Your task to perform on an android device: What's on my calendar today? Image 0: 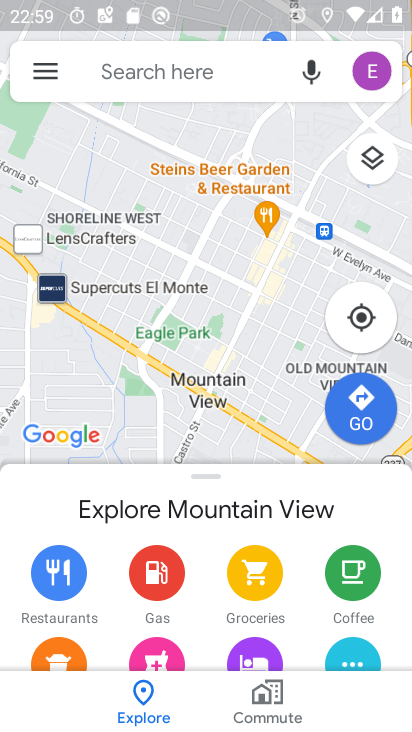
Step 0: press home button
Your task to perform on an android device: What's on my calendar today? Image 1: 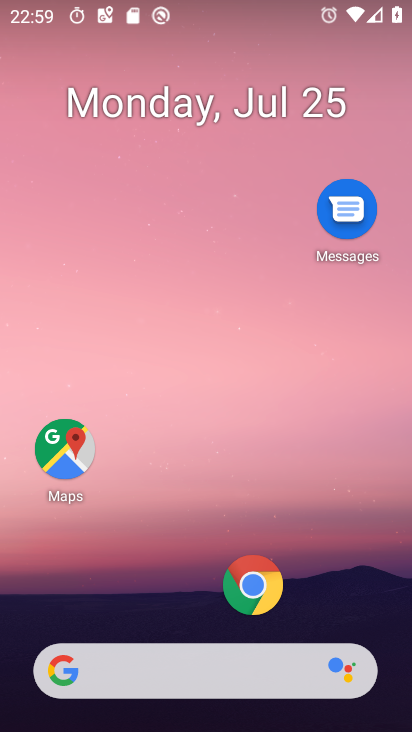
Step 1: drag from (169, 680) to (257, 48)
Your task to perform on an android device: What's on my calendar today? Image 2: 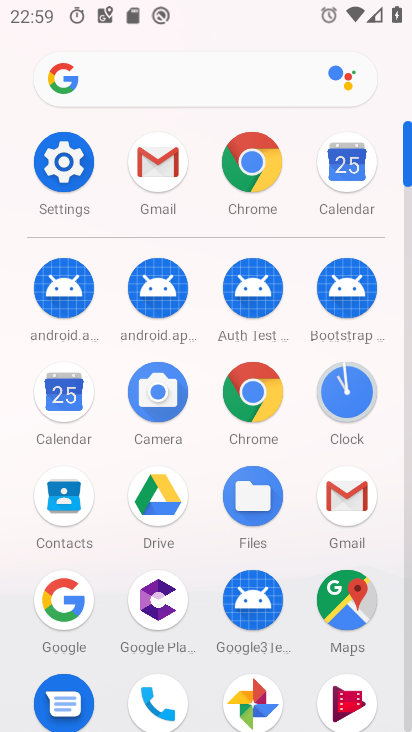
Step 2: click (67, 393)
Your task to perform on an android device: What's on my calendar today? Image 3: 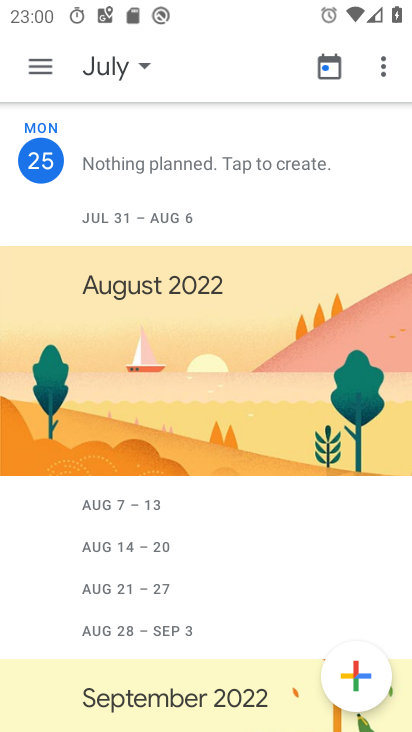
Step 3: task complete